Your task to perform on an android device: turn off location history Image 0: 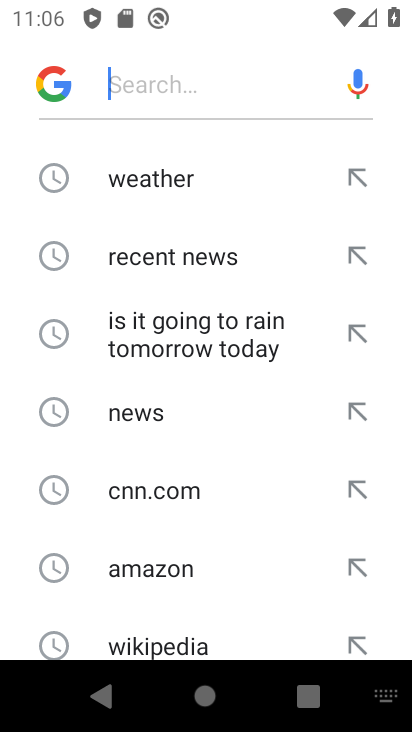
Step 0: press back button
Your task to perform on an android device: turn off location history Image 1: 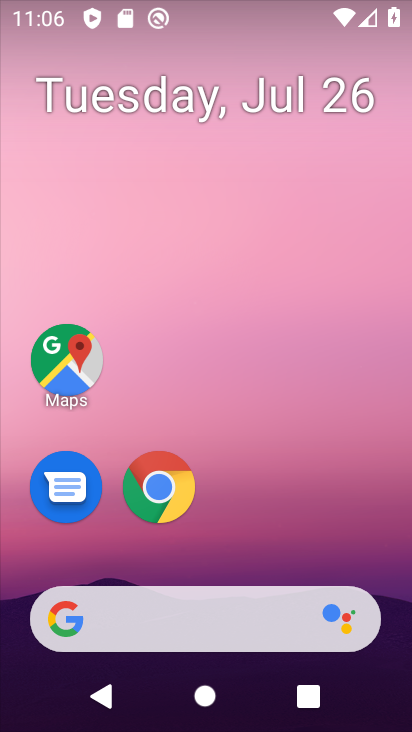
Step 1: drag from (286, 551) to (321, 28)
Your task to perform on an android device: turn off location history Image 2: 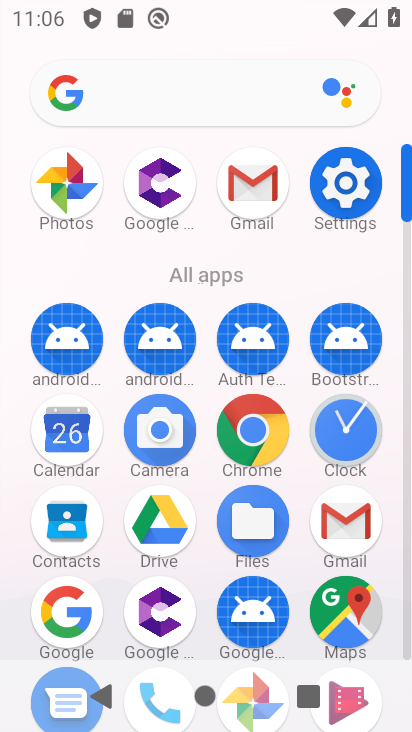
Step 2: click (340, 178)
Your task to perform on an android device: turn off location history Image 3: 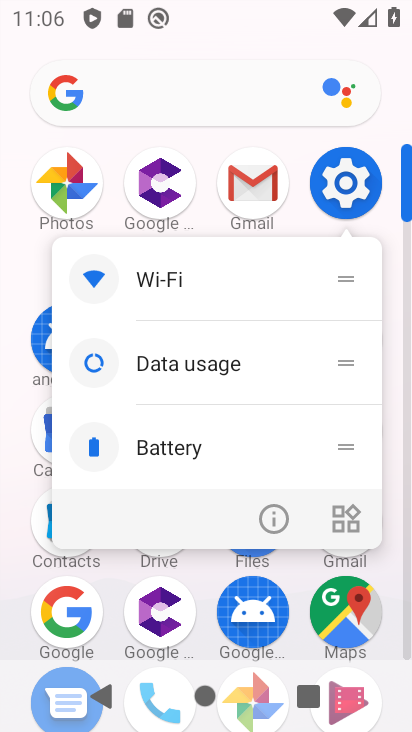
Step 3: click (333, 139)
Your task to perform on an android device: turn off location history Image 4: 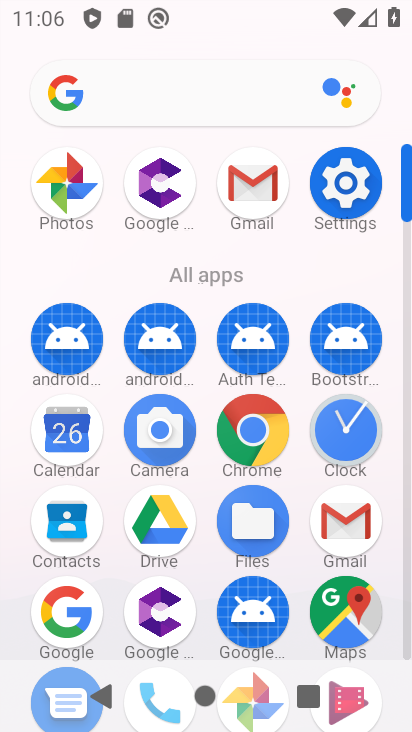
Step 4: click (333, 176)
Your task to perform on an android device: turn off location history Image 5: 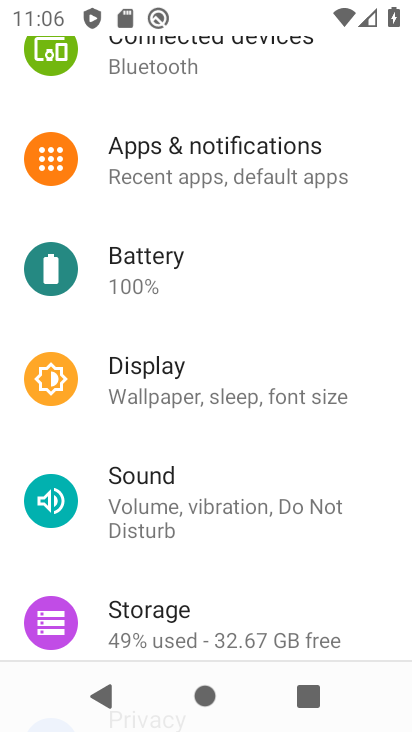
Step 5: drag from (250, 169) to (171, 656)
Your task to perform on an android device: turn off location history Image 6: 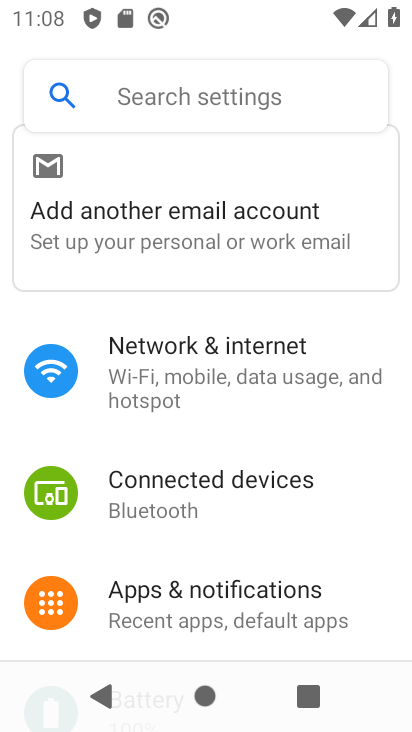
Step 6: drag from (235, 581) to (300, 114)
Your task to perform on an android device: turn off location history Image 7: 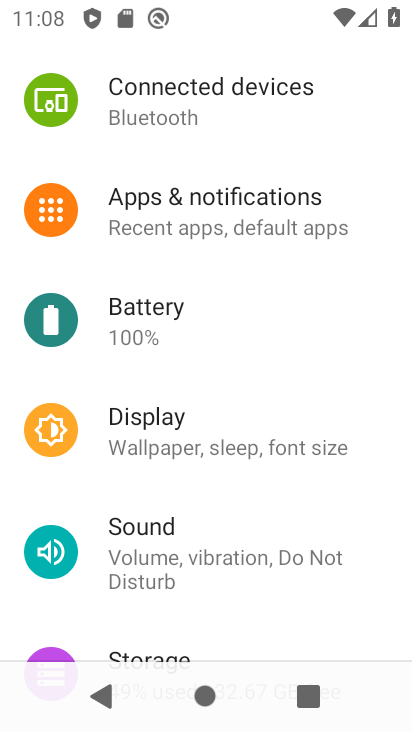
Step 7: drag from (191, 621) to (240, 94)
Your task to perform on an android device: turn off location history Image 8: 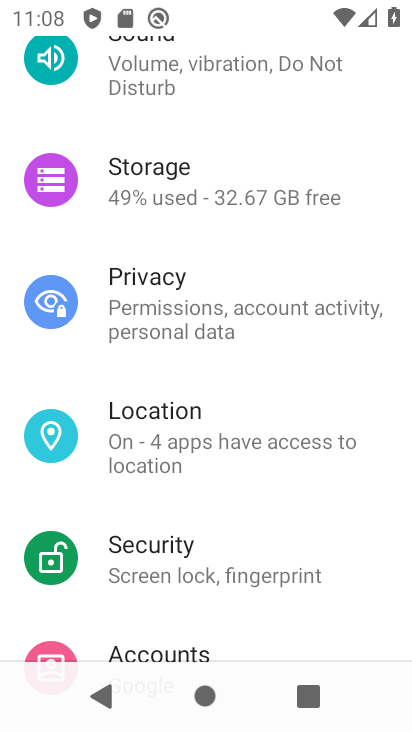
Step 8: click (175, 435)
Your task to perform on an android device: turn off location history Image 9: 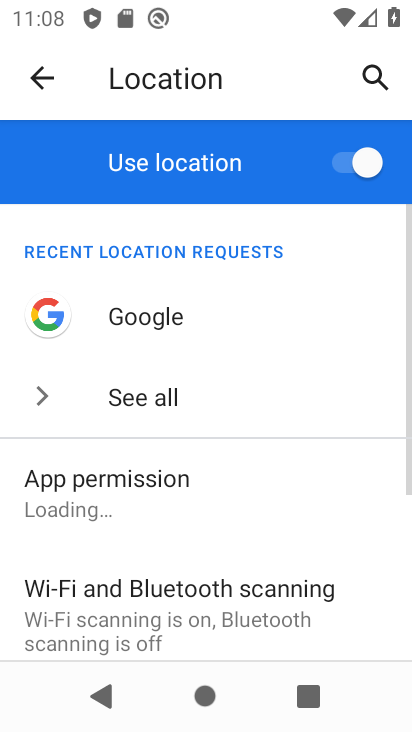
Step 9: drag from (170, 582) to (280, 47)
Your task to perform on an android device: turn off location history Image 10: 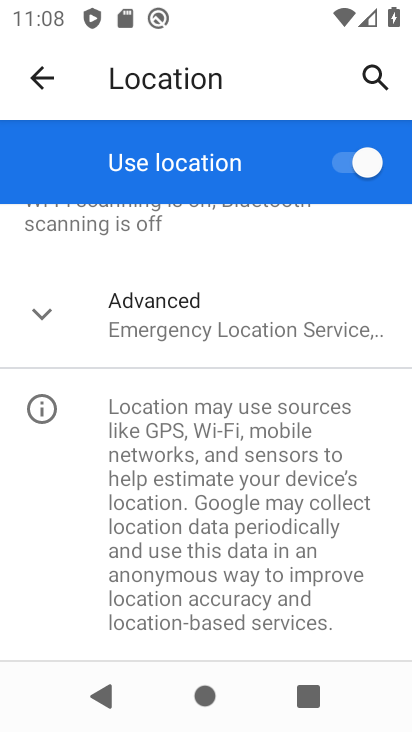
Step 10: click (191, 332)
Your task to perform on an android device: turn off location history Image 11: 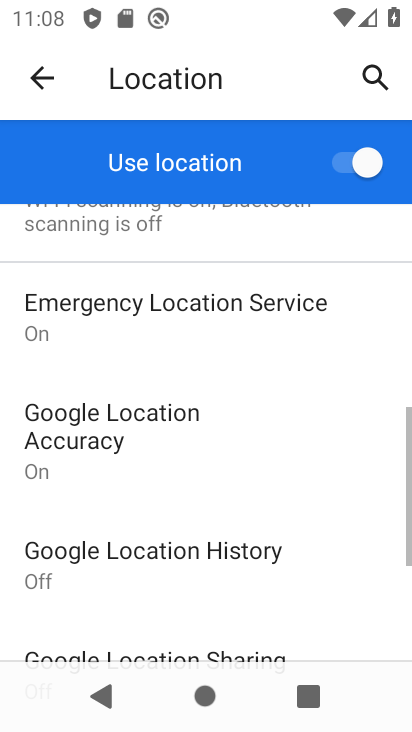
Step 11: click (205, 563)
Your task to perform on an android device: turn off location history Image 12: 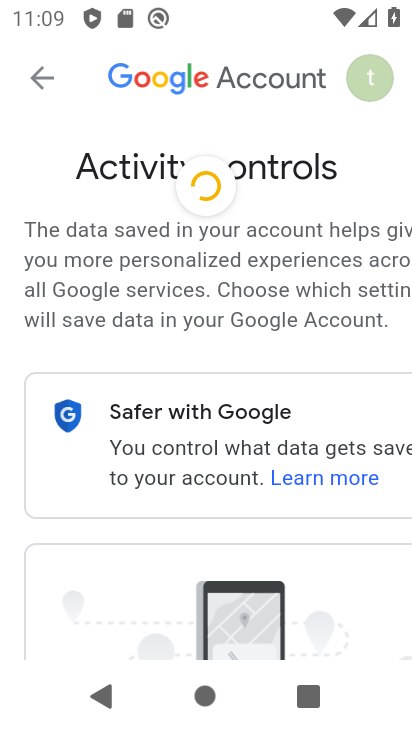
Step 12: task complete